Your task to perform on an android device: Open Chrome and go to the settings page Image 0: 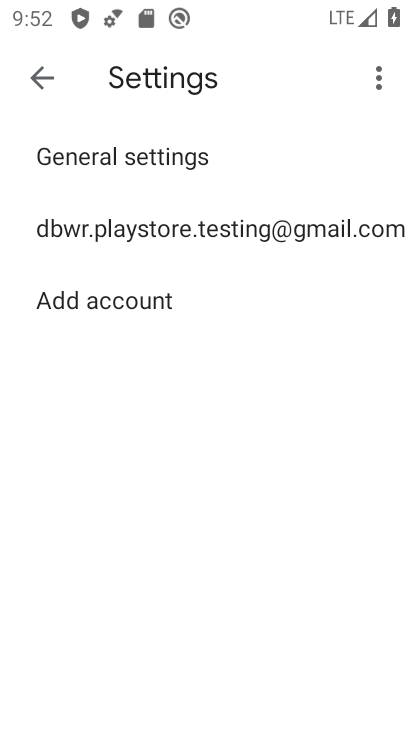
Step 0: press home button
Your task to perform on an android device: Open Chrome and go to the settings page Image 1: 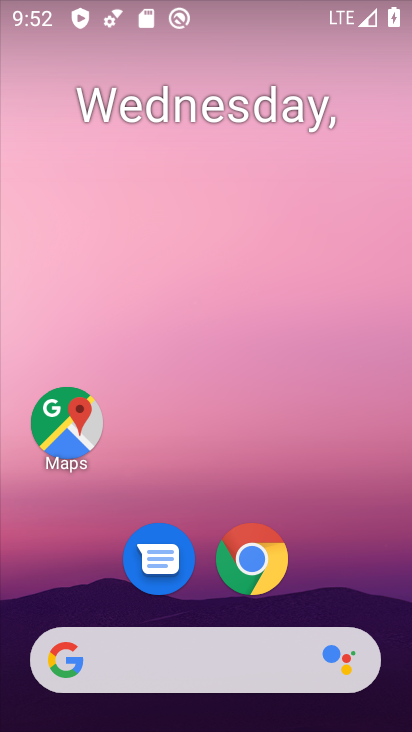
Step 1: click (234, 568)
Your task to perform on an android device: Open Chrome and go to the settings page Image 2: 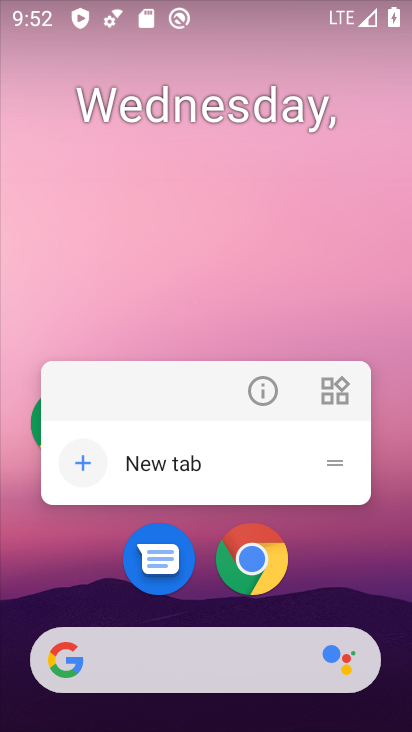
Step 2: click (234, 559)
Your task to perform on an android device: Open Chrome and go to the settings page Image 3: 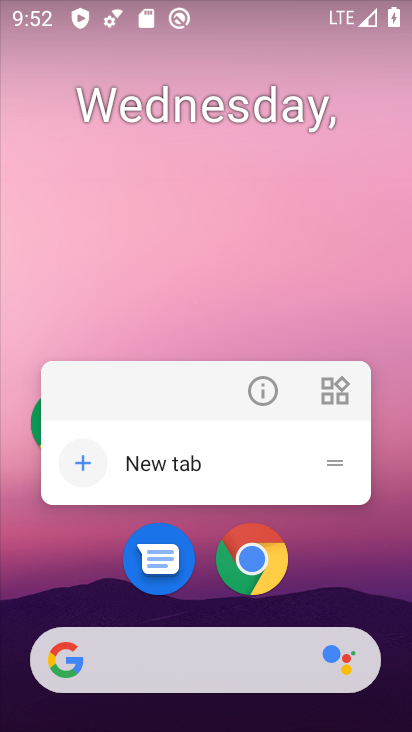
Step 3: click (256, 575)
Your task to perform on an android device: Open Chrome and go to the settings page Image 4: 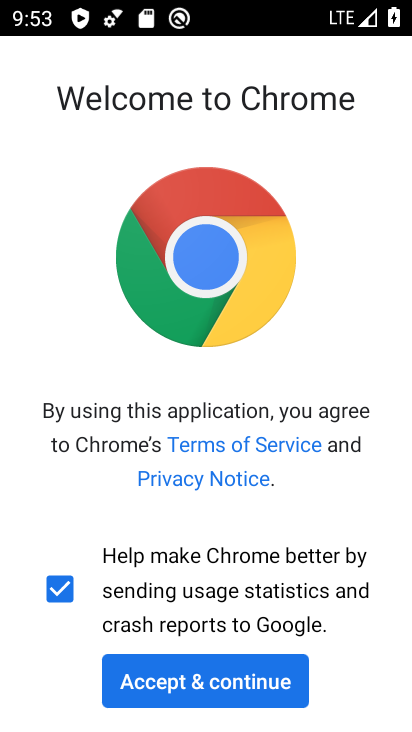
Step 4: click (247, 696)
Your task to perform on an android device: Open Chrome and go to the settings page Image 5: 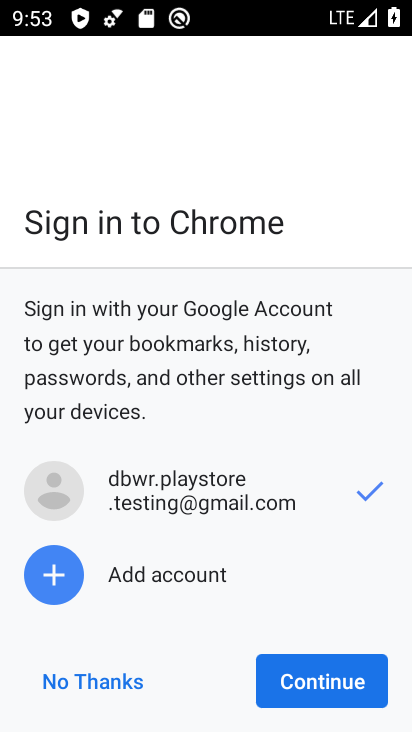
Step 5: click (109, 680)
Your task to perform on an android device: Open Chrome and go to the settings page Image 6: 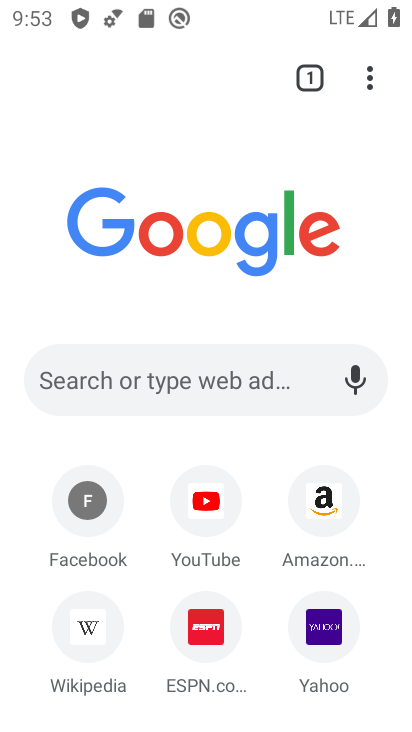
Step 6: task complete